Your task to perform on an android device: toggle airplane mode Image 0: 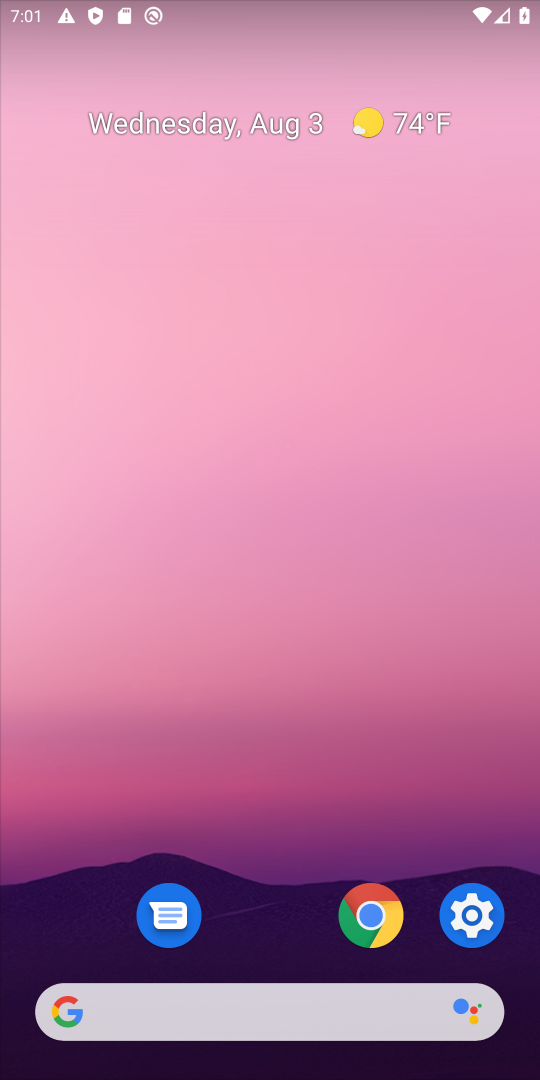
Step 0: press home button
Your task to perform on an android device: toggle airplane mode Image 1: 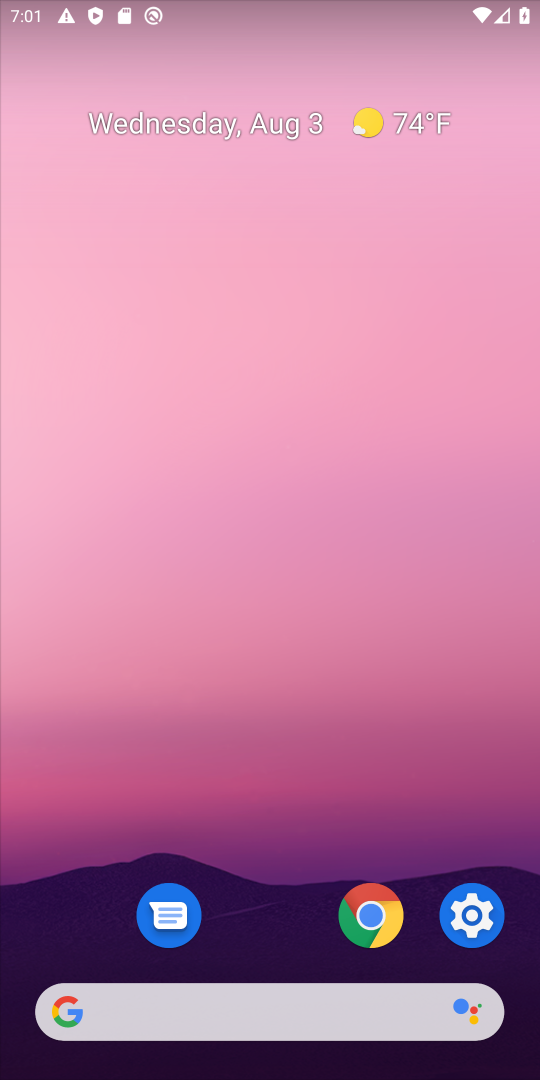
Step 1: drag from (357, 1048) to (280, 321)
Your task to perform on an android device: toggle airplane mode Image 2: 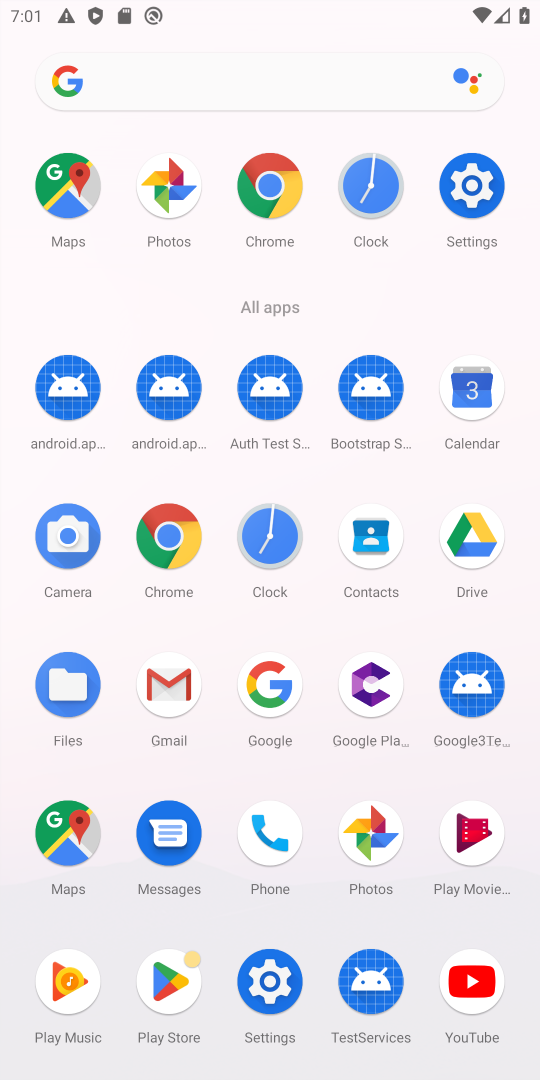
Step 2: click (461, 154)
Your task to perform on an android device: toggle airplane mode Image 3: 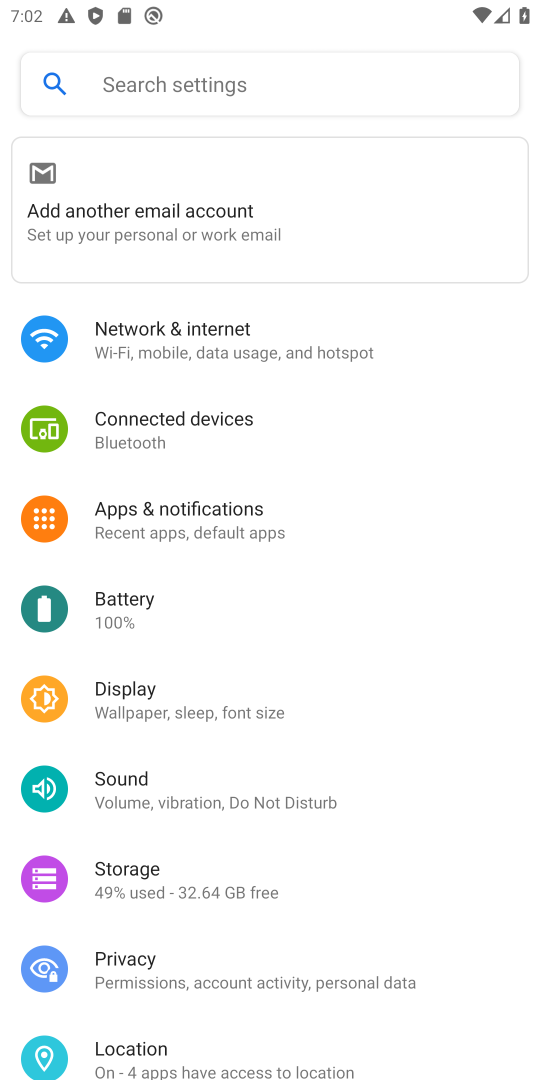
Step 3: click (179, 376)
Your task to perform on an android device: toggle airplane mode Image 4: 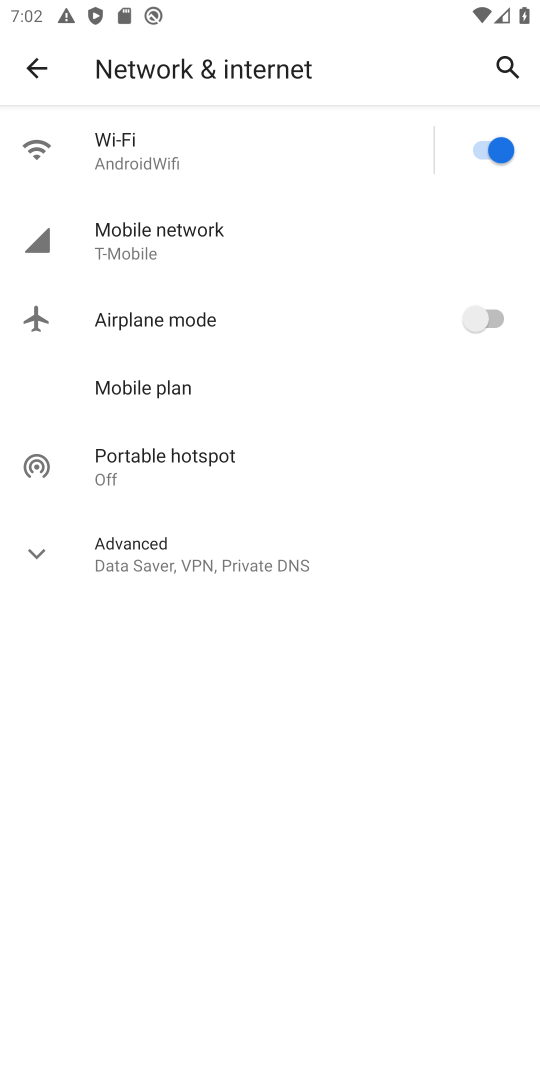
Step 4: click (214, 349)
Your task to perform on an android device: toggle airplane mode Image 5: 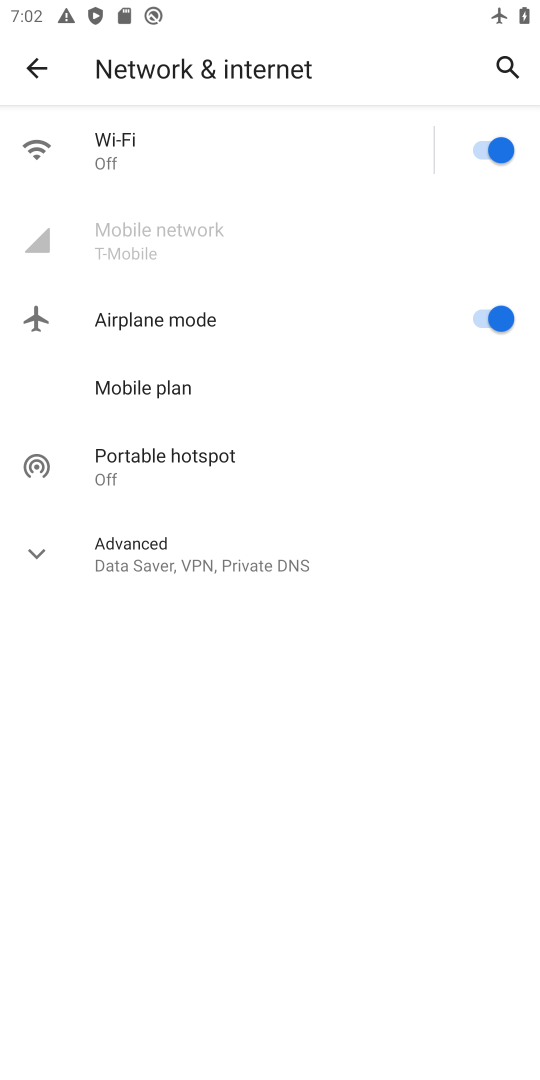
Step 5: click (214, 343)
Your task to perform on an android device: toggle airplane mode Image 6: 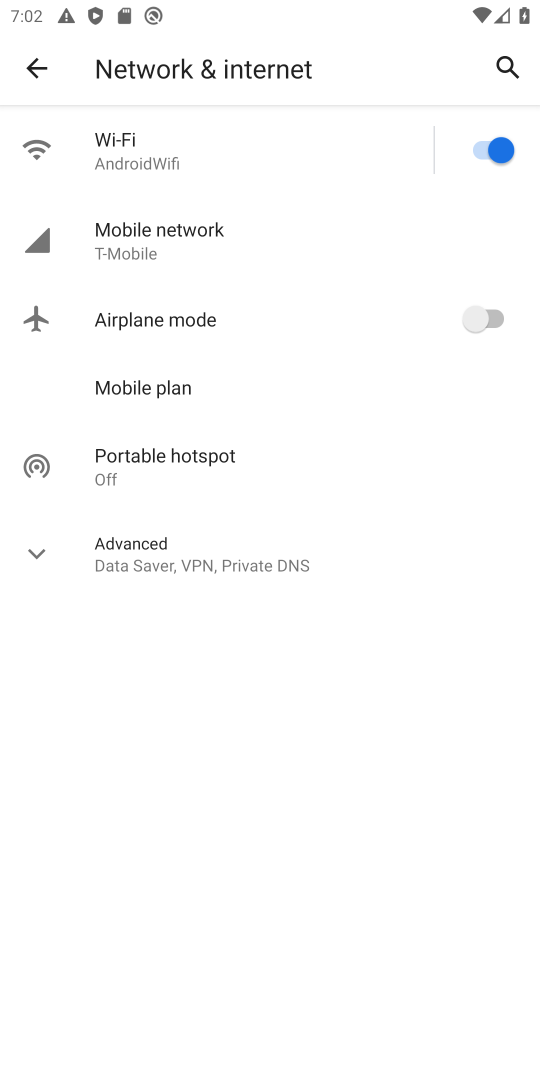
Step 6: task complete